Your task to perform on an android device: open a bookmark in the chrome app Image 0: 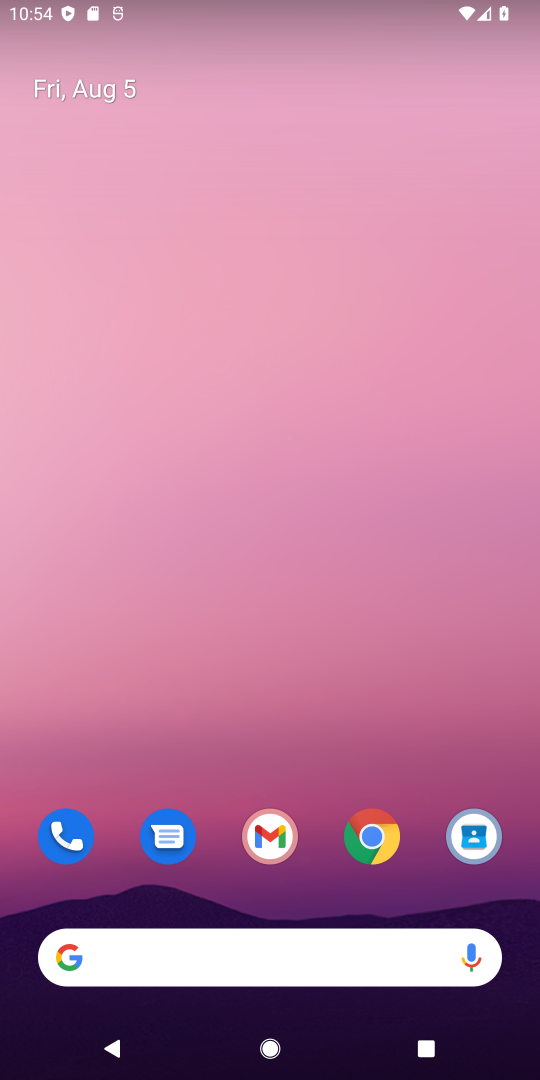
Step 0: drag from (327, 867) to (393, 144)
Your task to perform on an android device: open a bookmark in the chrome app Image 1: 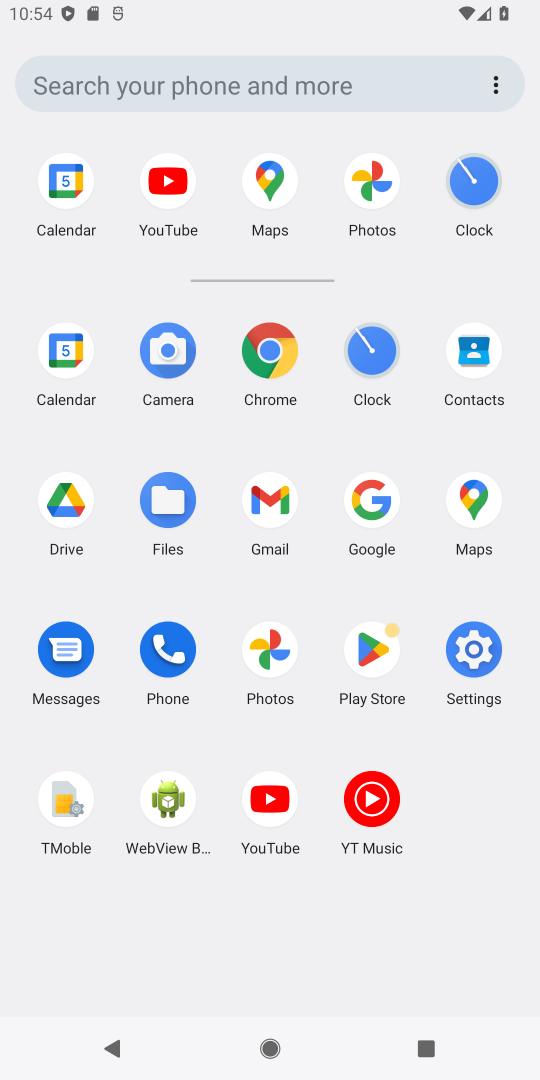
Step 1: click (271, 350)
Your task to perform on an android device: open a bookmark in the chrome app Image 2: 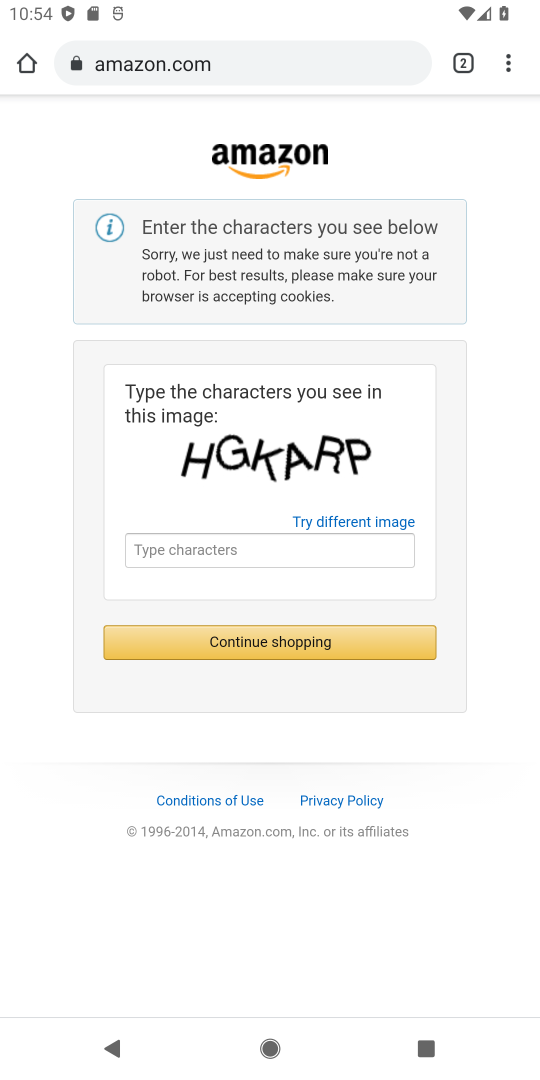
Step 2: drag from (506, 58) to (364, 426)
Your task to perform on an android device: open a bookmark in the chrome app Image 3: 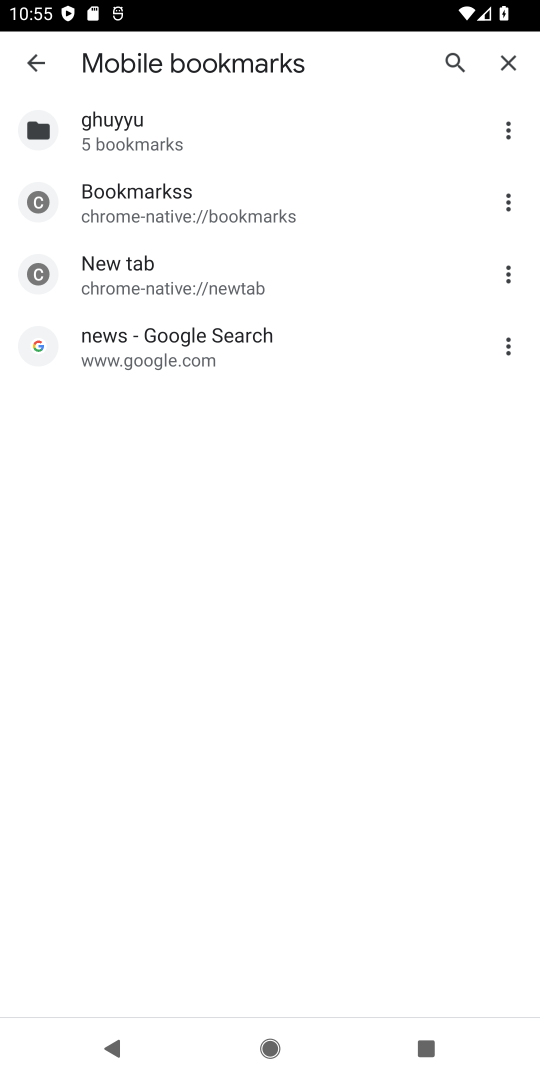
Step 3: click (173, 353)
Your task to perform on an android device: open a bookmark in the chrome app Image 4: 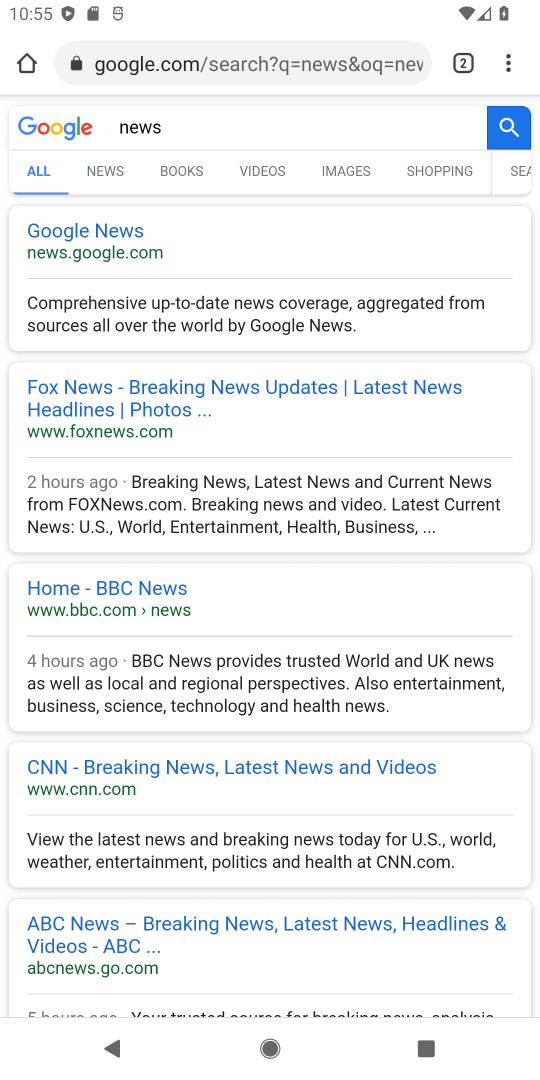
Step 4: task complete